Your task to perform on an android device: turn notification dots on Image 0: 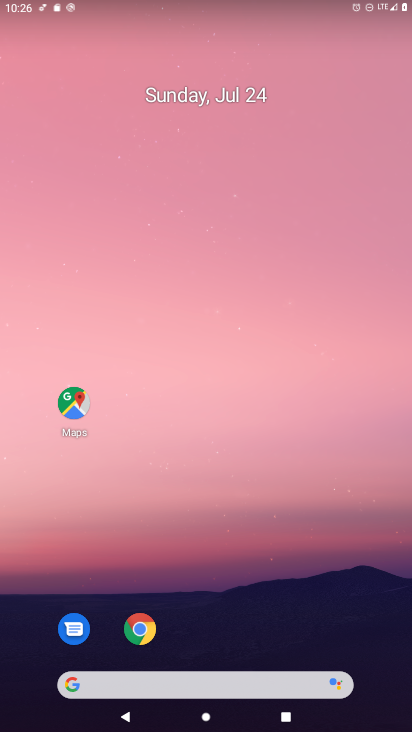
Step 0: drag from (301, 614) to (171, 31)
Your task to perform on an android device: turn notification dots on Image 1: 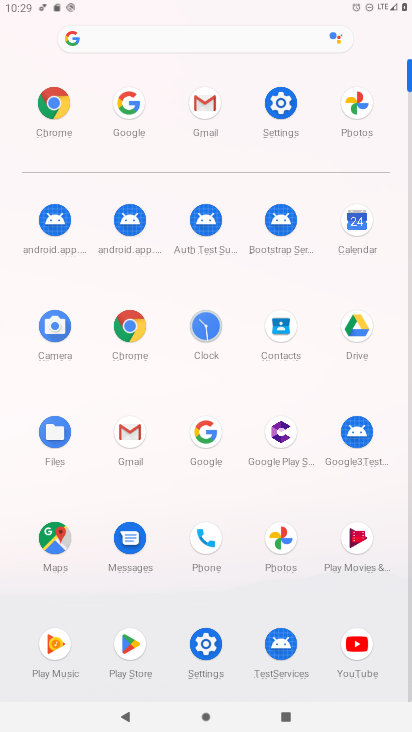
Step 1: click (191, 640)
Your task to perform on an android device: turn notification dots on Image 2: 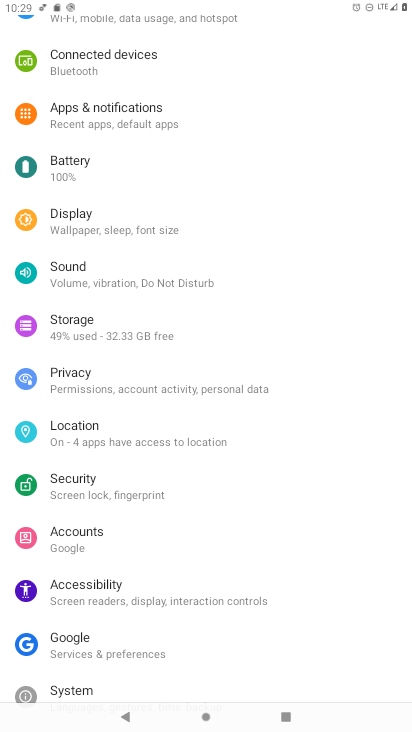
Step 2: click (90, 109)
Your task to perform on an android device: turn notification dots on Image 3: 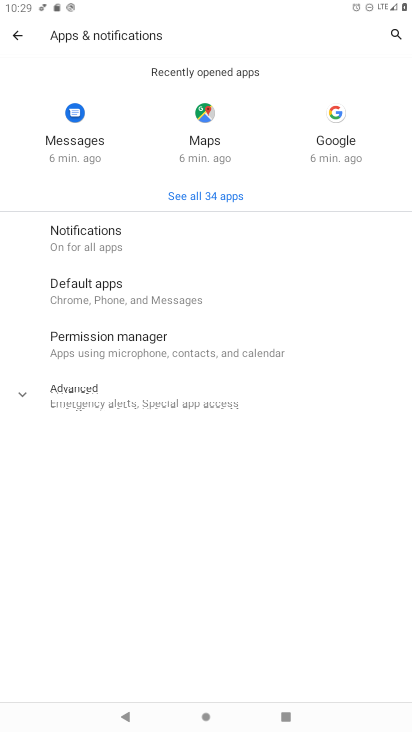
Step 3: click (71, 236)
Your task to perform on an android device: turn notification dots on Image 4: 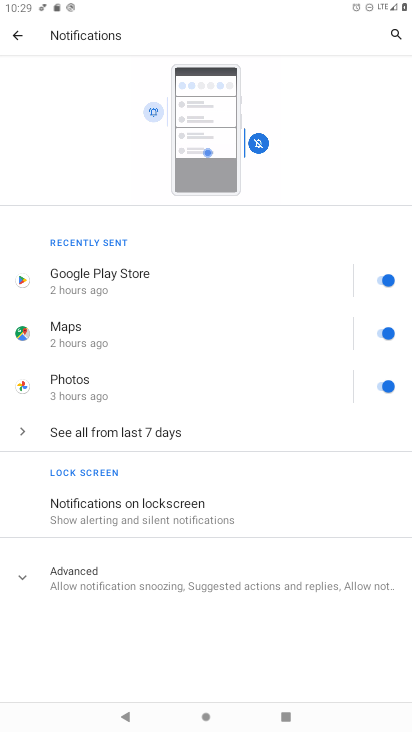
Step 4: click (52, 572)
Your task to perform on an android device: turn notification dots on Image 5: 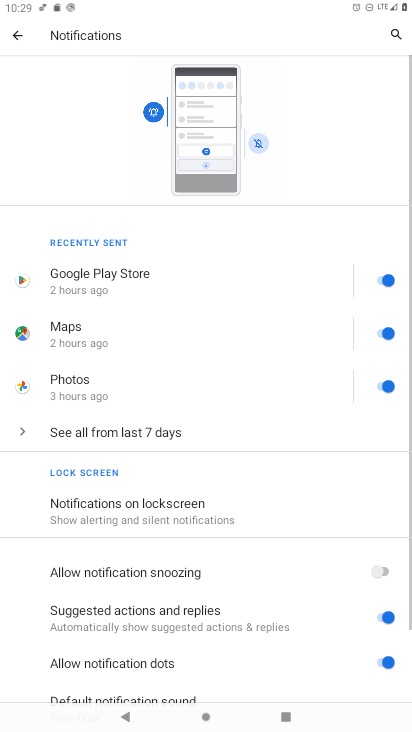
Step 5: click (255, 662)
Your task to perform on an android device: turn notification dots on Image 6: 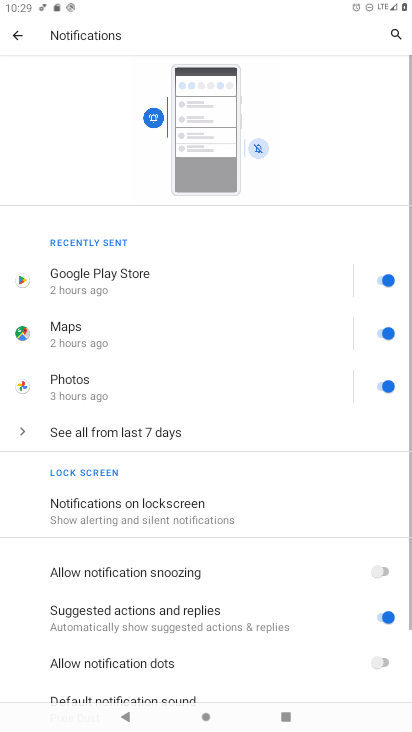
Step 6: click (255, 662)
Your task to perform on an android device: turn notification dots on Image 7: 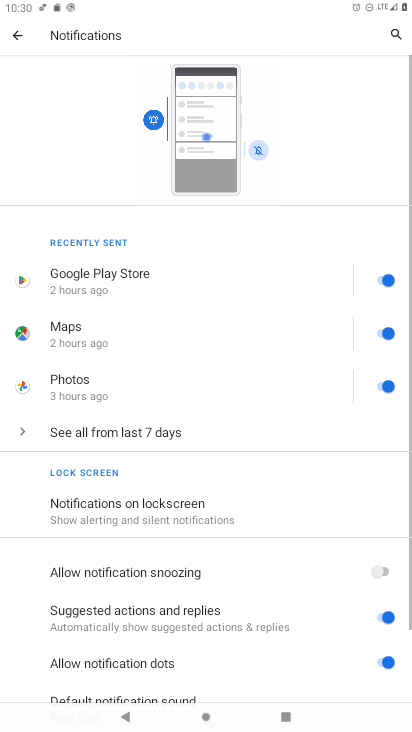
Step 7: task complete